Your task to perform on an android device: turn off notifications in google photos Image 0: 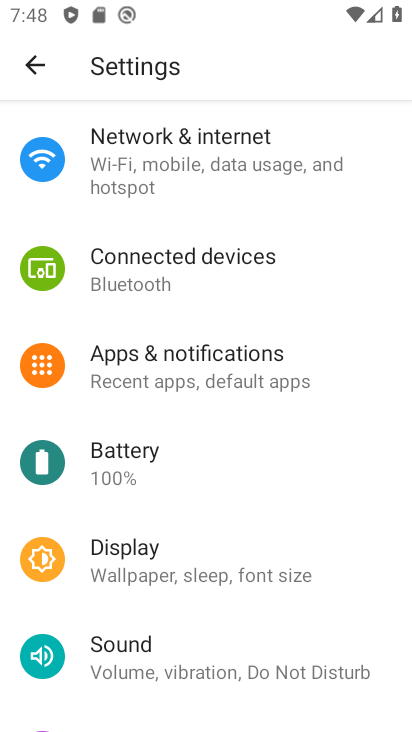
Step 0: press home button
Your task to perform on an android device: turn off notifications in google photos Image 1: 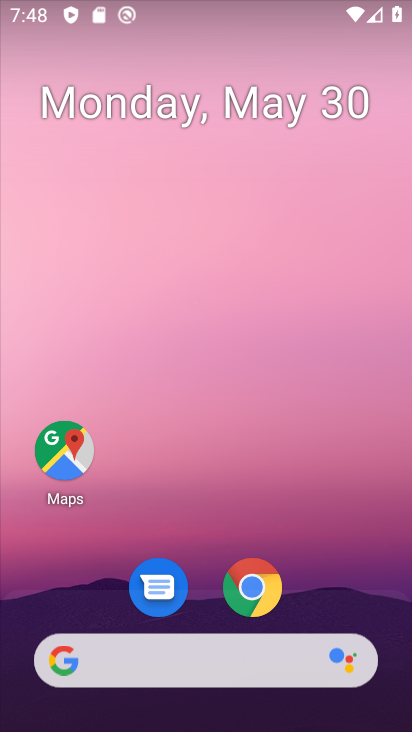
Step 1: drag from (300, 482) to (394, 129)
Your task to perform on an android device: turn off notifications in google photos Image 2: 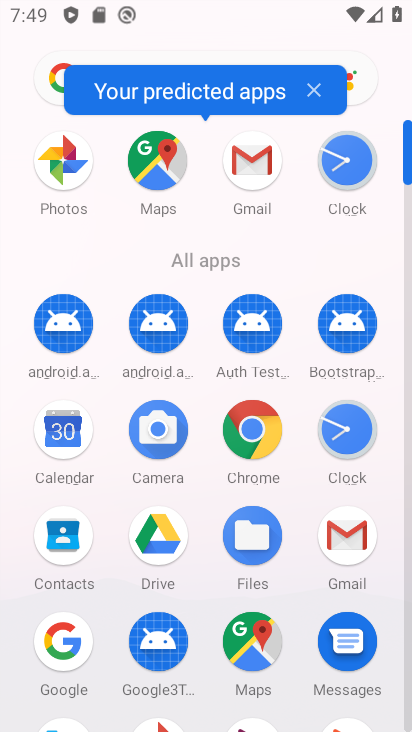
Step 2: click (65, 167)
Your task to perform on an android device: turn off notifications in google photos Image 3: 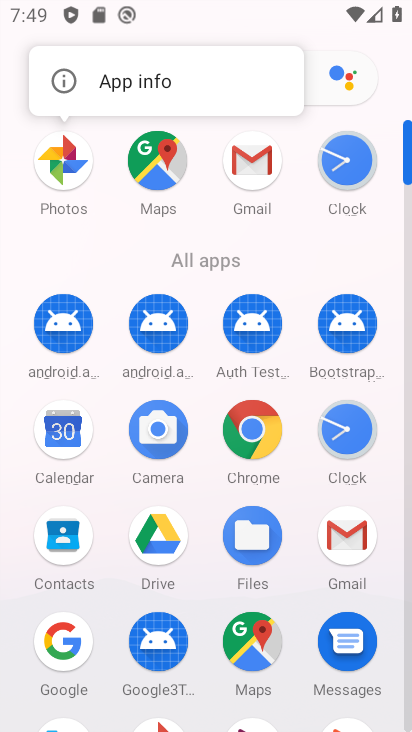
Step 3: click (65, 167)
Your task to perform on an android device: turn off notifications in google photos Image 4: 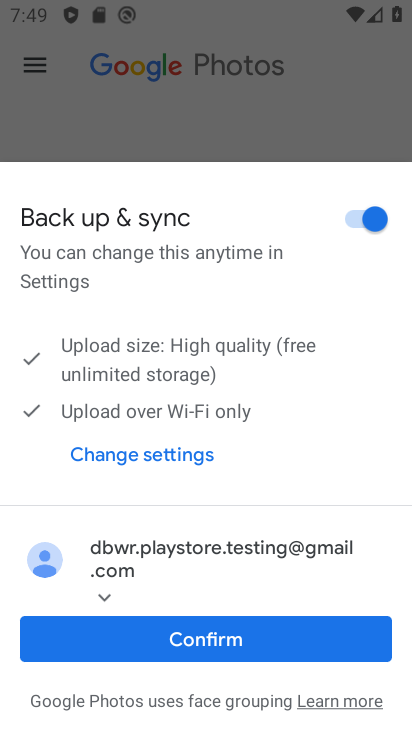
Step 4: click (214, 651)
Your task to perform on an android device: turn off notifications in google photos Image 5: 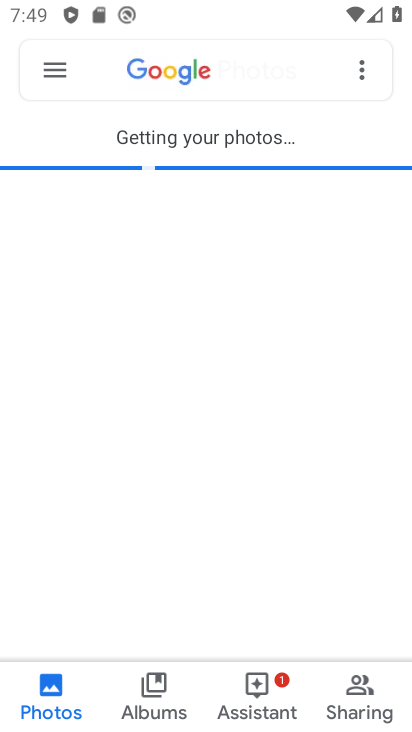
Step 5: click (59, 72)
Your task to perform on an android device: turn off notifications in google photos Image 6: 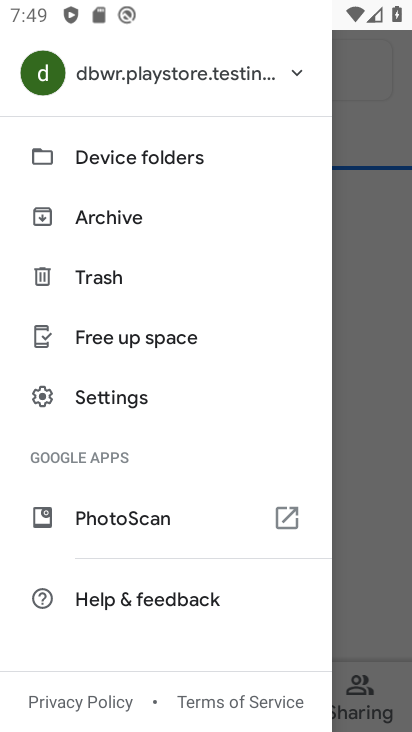
Step 6: click (135, 397)
Your task to perform on an android device: turn off notifications in google photos Image 7: 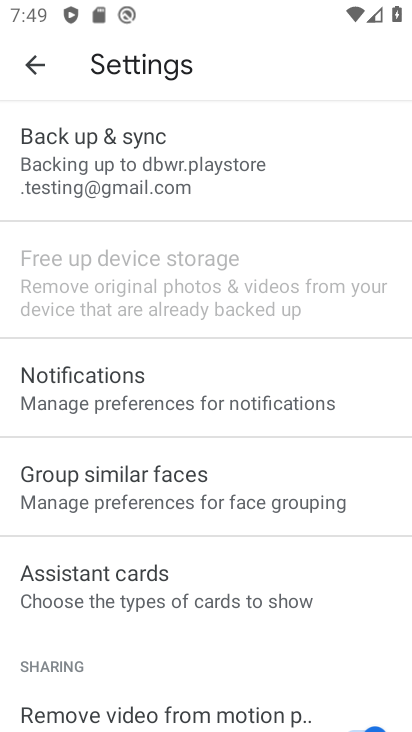
Step 7: click (139, 380)
Your task to perform on an android device: turn off notifications in google photos Image 8: 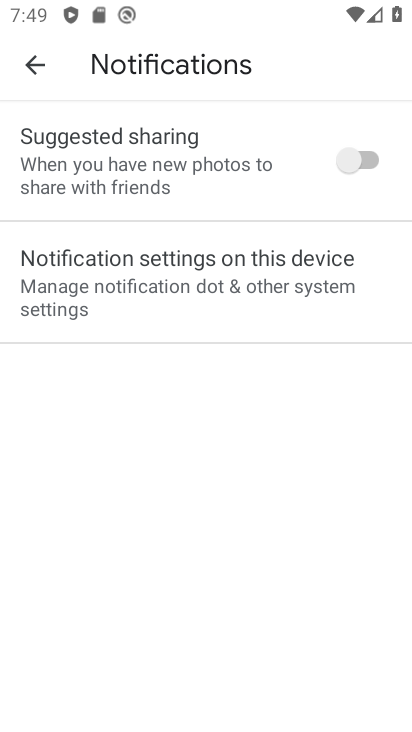
Step 8: click (241, 283)
Your task to perform on an android device: turn off notifications in google photos Image 9: 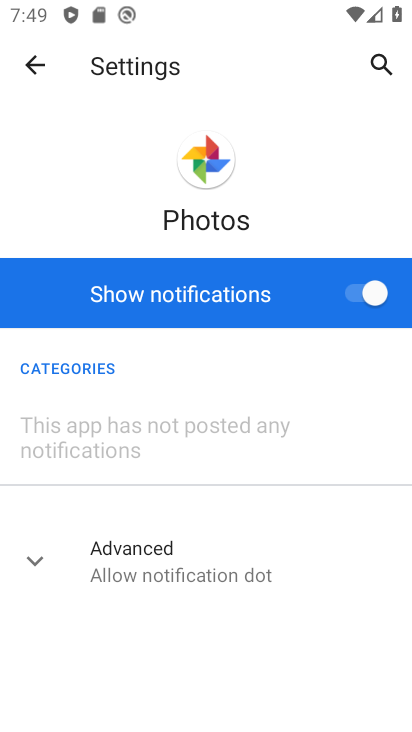
Step 9: click (357, 286)
Your task to perform on an android device: turn off notifications in google photos Image 10: 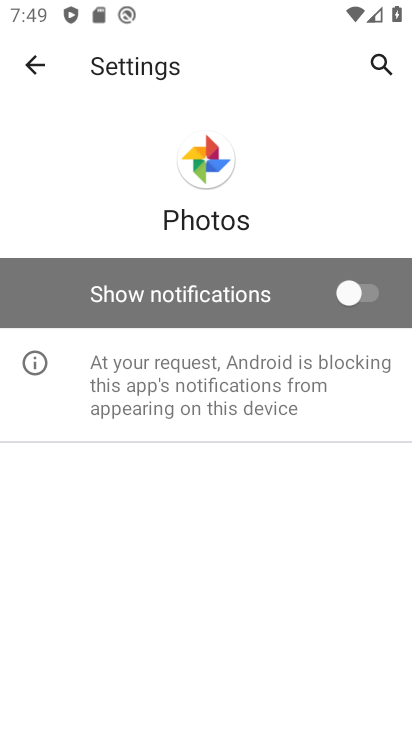
Step 10: task complete